Your task to perform on an android device: turn off notifications settings in the gmail app Image 0: 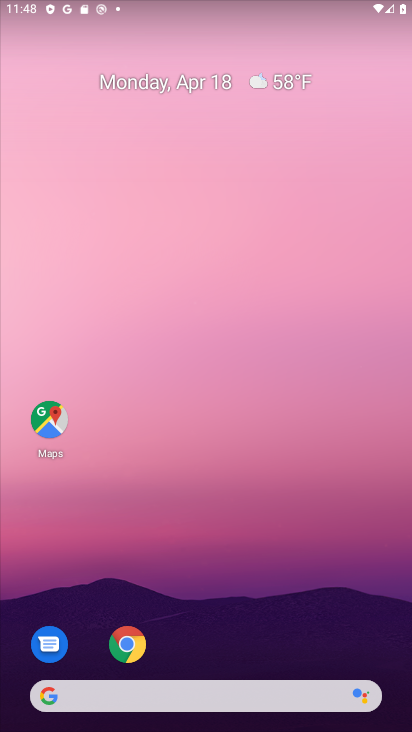
Step 0: drag from (138, 528) to (116, 151)
Your task to perform on an android device: turn off notifications settings in the gmail app Image 1: 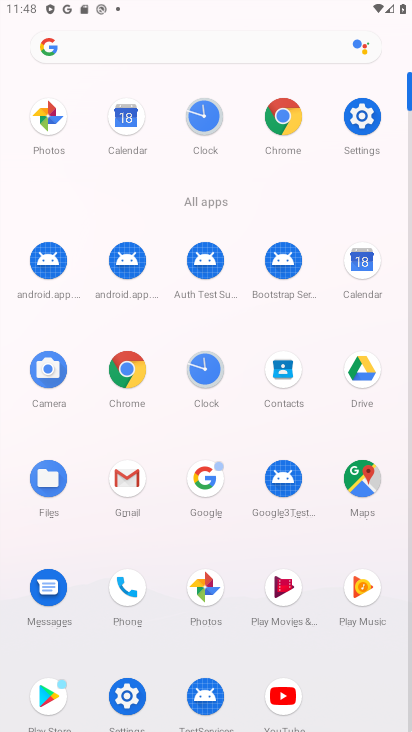
Step 1: click (126, 491)
Your task to perform on an android device: turn off notifications settings in the gmail app Image 2: 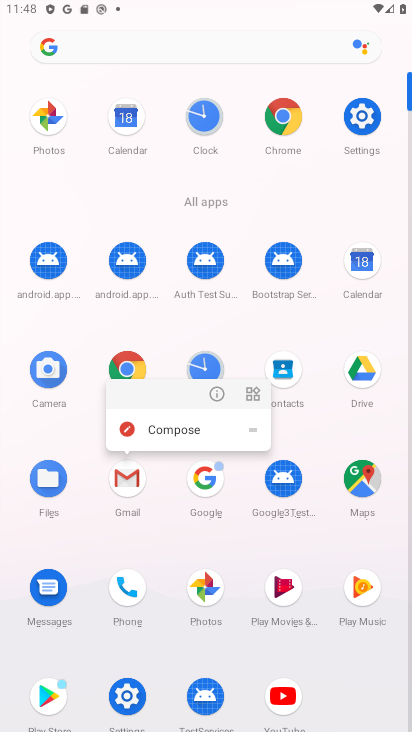
Step 2: click (126, 481)
Your task to perform on an android device: turn off notifications settings in the gmail app Image 3: 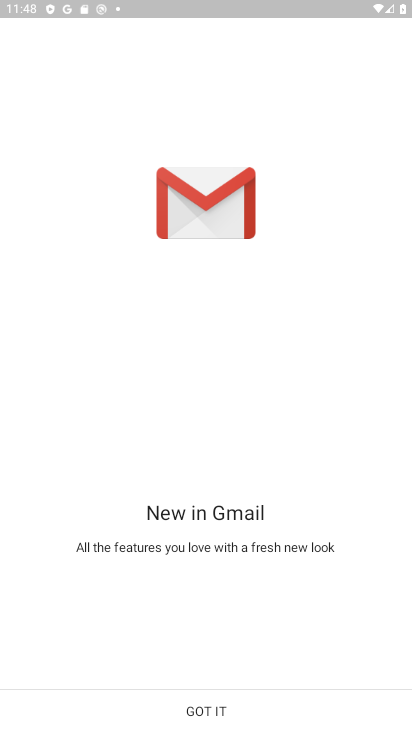
Step 3: click (217, 715)
Your task to perform on an android device: turn off notifications settings in the gmail app Image 4: 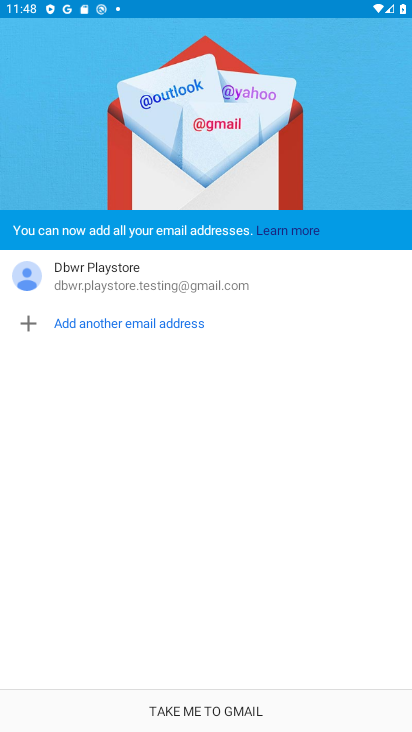
Step 4: click (222, 722)
Your task to perform on an android device: turn off notifications settings in the gmail app Image 5: 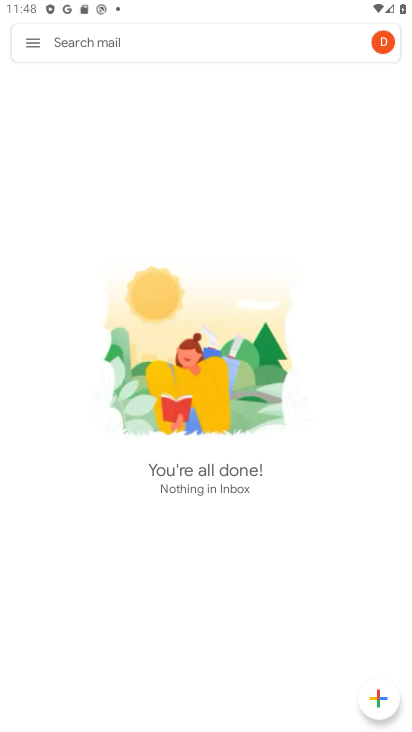
Step 5: click (32, 35)
Your task to perform on an android device: turn off notifications settings in the gmail app Image 6: 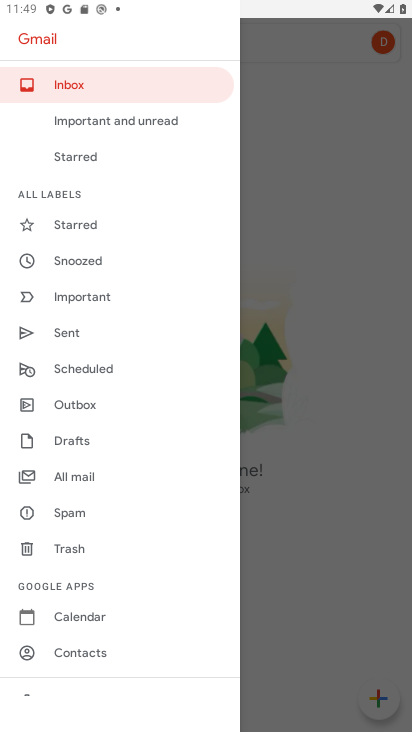
Step 6: drag from (107, 568) to (109, 227)
Your task to perform on an android device: turn off notifications settings in the gmail app Image 7: 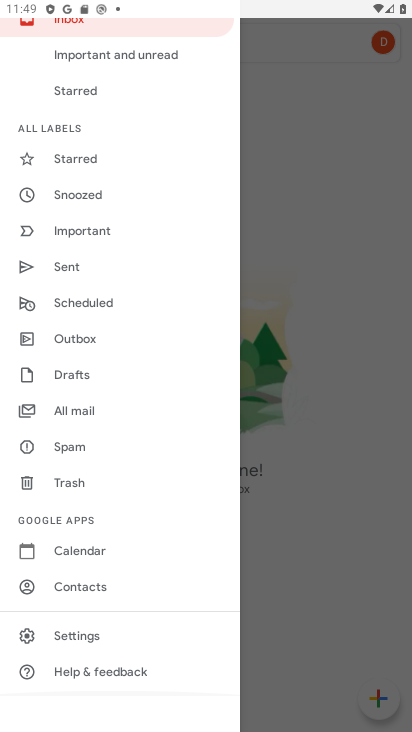
Step 7: click (71, 639)
Your task to perform on an android device: turn off notifications settings in the gmail app Image 8: 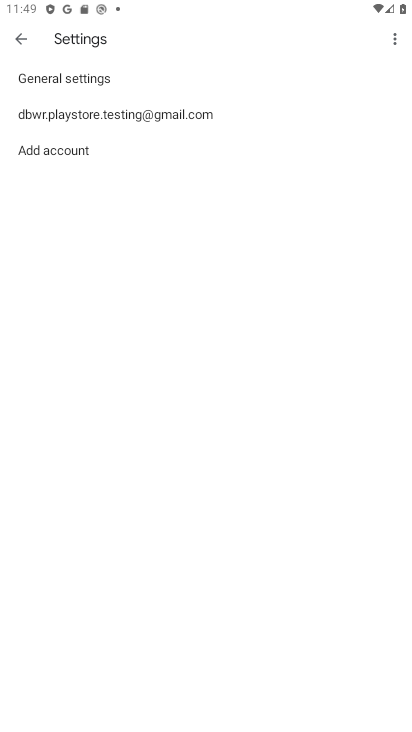
Step 8: click (137, 115)
Your task to perform on an android device: turn off notifications settings in the gmail app Image 9: 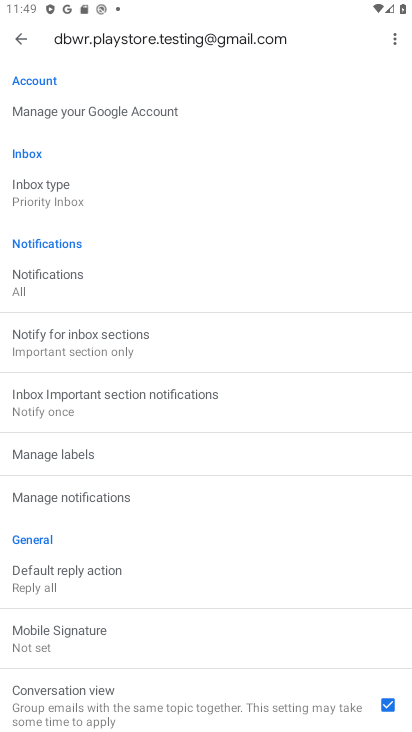
Step 9: click (90, 284)
Your task to perform on an android device: turn off notifications settings in the gmail app Image 10: 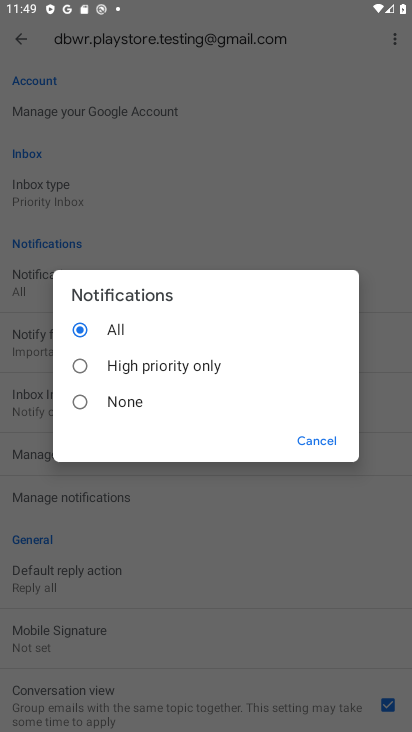
Step 10: click (145, 410)
Your task to perform on an android device: turn off notifications settings in the gmail app Image 11: 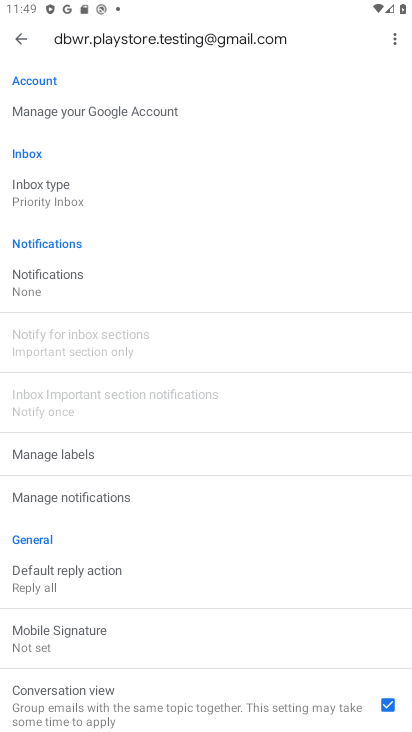
Step 11: task complete